Your task to perform on an android device: find photos in the google photos app Image 0: 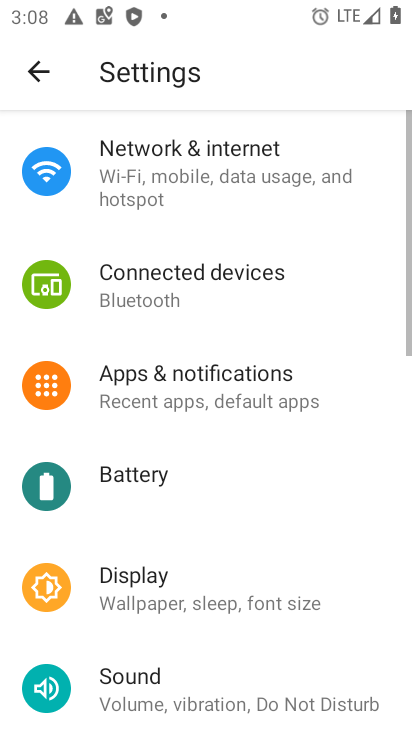
Step 0: press home button
Your task to perform on an android device: find photos in the google photos app Image 1: 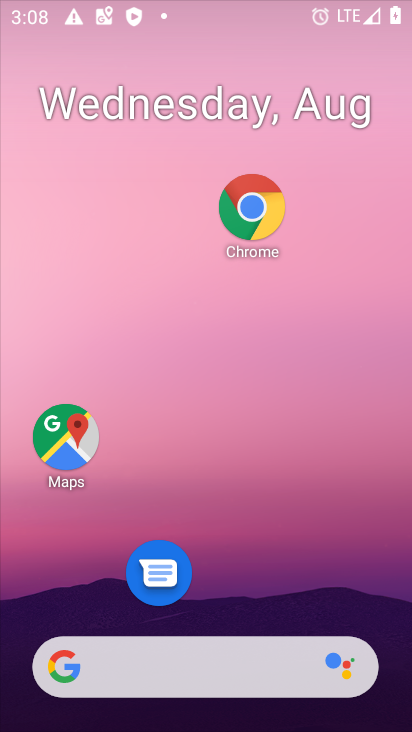
Step 1: drag from (215, 663) to (207, 259)
Your task to perform on an android device: find photos in the google photos app Image 2: 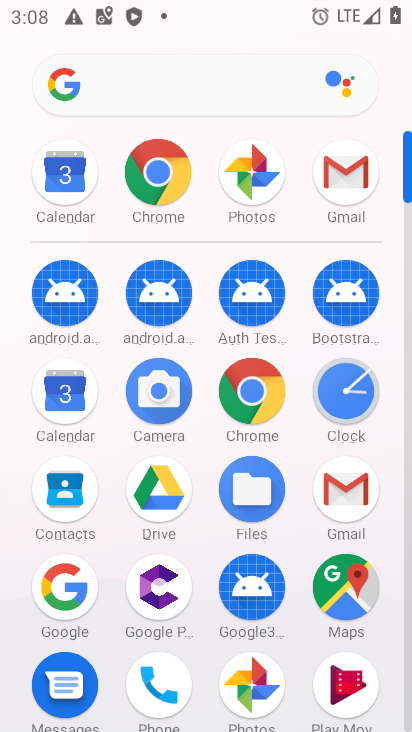
Step 2: click (243, 678)
Your task to perform on an android device: find photos in the google photos app Image 3: 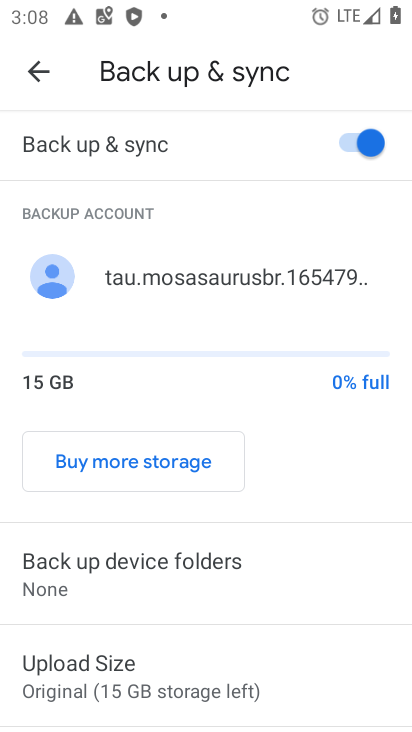
Step 3: click (39, 70)
Your task to perform on an android device: find photos in the google photos app Image 4: 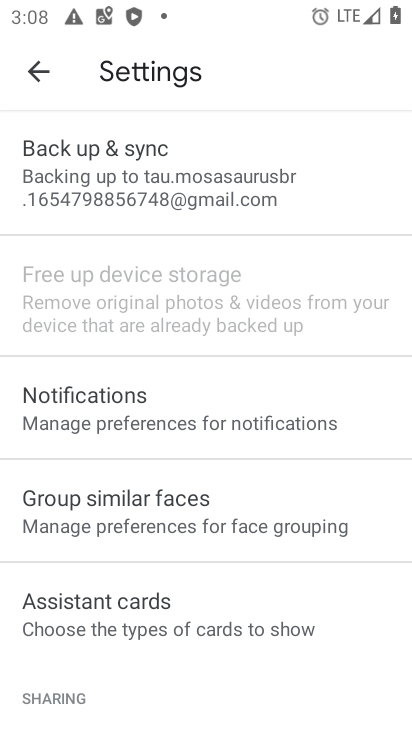
Step 4: click (39, 70)
Your task to perform on an android device: find photos in the google photos app Image 5: 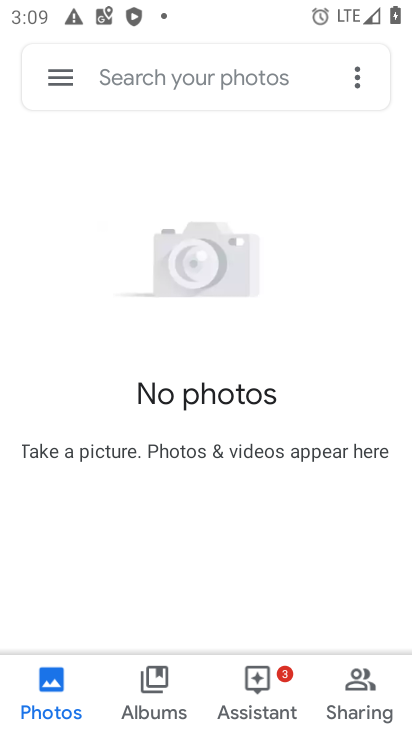
Step 5: task complete